Your task to perform on an android device: add a label to a message in the gmail app Image 0: 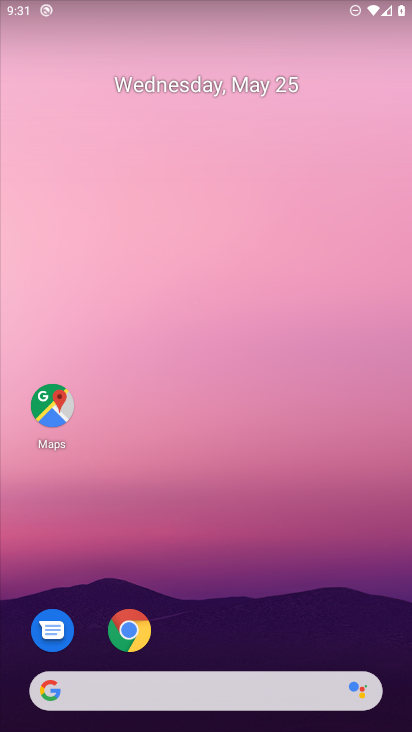
Step 0: drag from (258, 630) to (260, 339)
Your task to perform on an android device: add a label to a message in the gmail app Image 1: 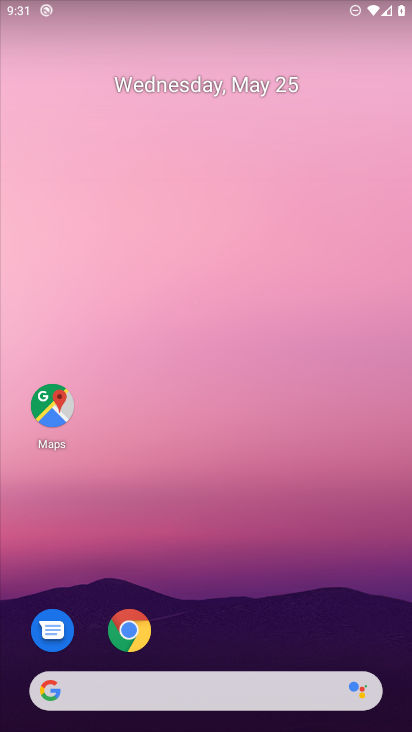
Step 1: drag from (204, 667) to (222, 306)
Your task to perform on an android device: add a label to a message in the gmail app Image 2: 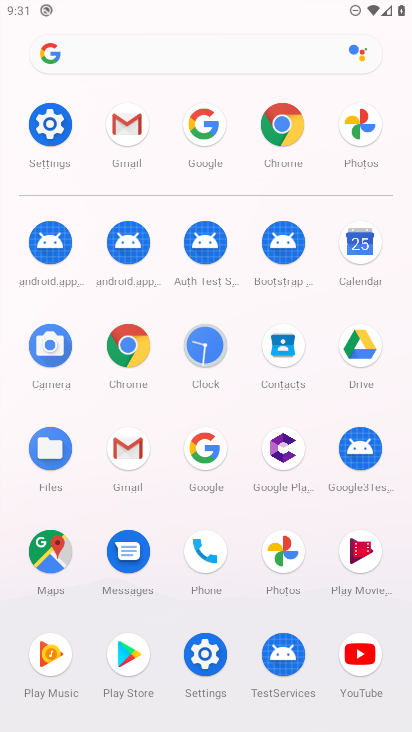
Step 2: click (129, 453)
Your task to perform on an android device: add a label to a message in the gmail app Image 3: 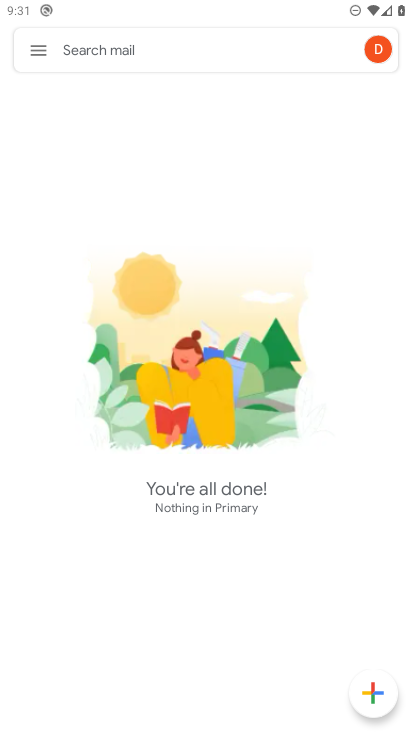
Step 3: click (35, 51)
Your task to perform on an android device: add a label to a message in the gmail app Image 4: 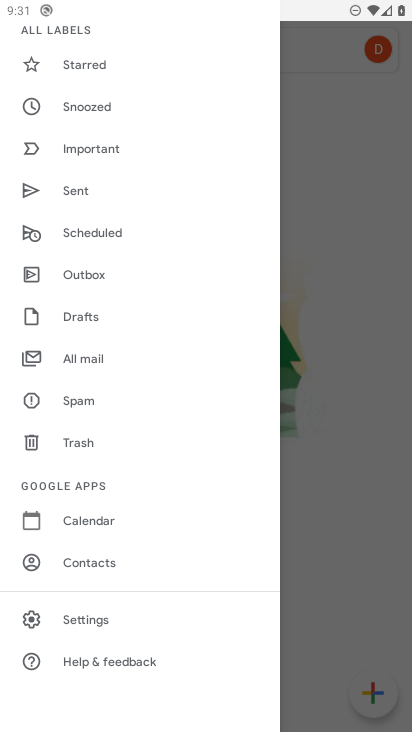
Step 4: drag from (105, 100) to (126, 563)
Your task to perform on an android device: add a label to a message in the gmail app Image 5: 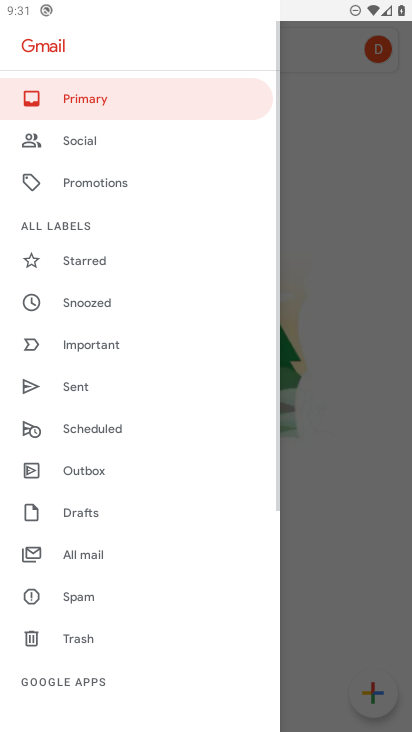
Step 5: click (83, 101)
Your task to perform on an android device: add a label to a message in the gmail app Image 6: 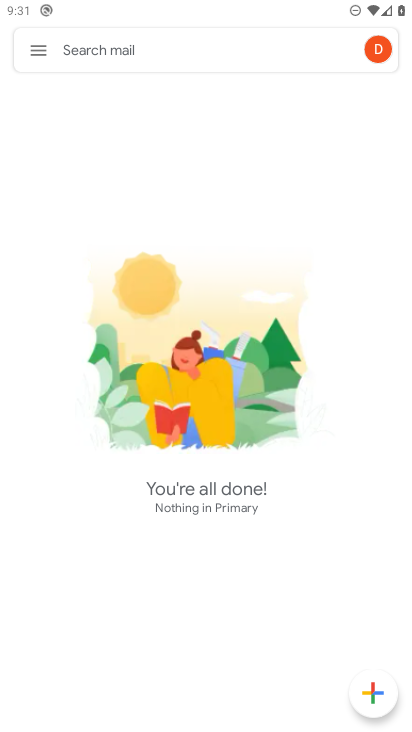
Step 6: task complete